Your task to perform on an android device: toggle translation in the chrome app Image 0: 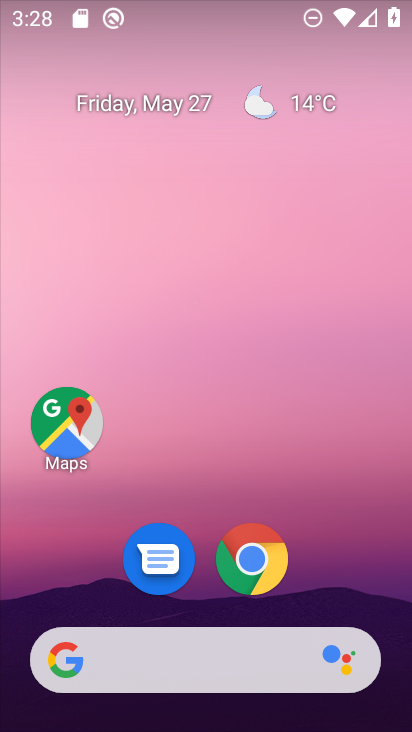
Step 0: drag from (294, 592) to (288, 61)
Your task to perform on an android device: toggle translation in the chrome app Image 1: 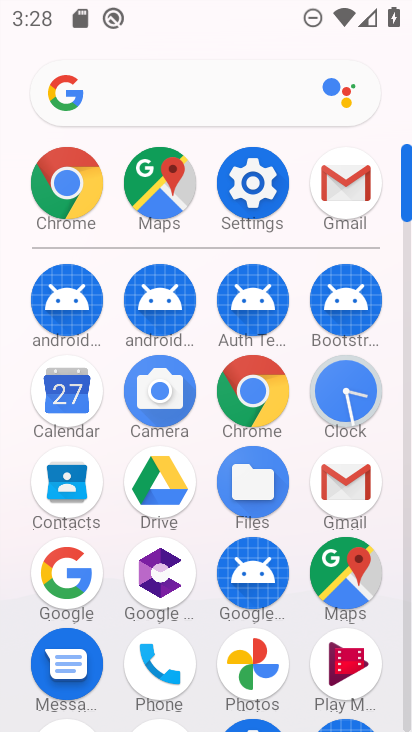
Step 1: click (61, 188)
Your task to perform on an android device: toggle translation in the chrome app Image 2: 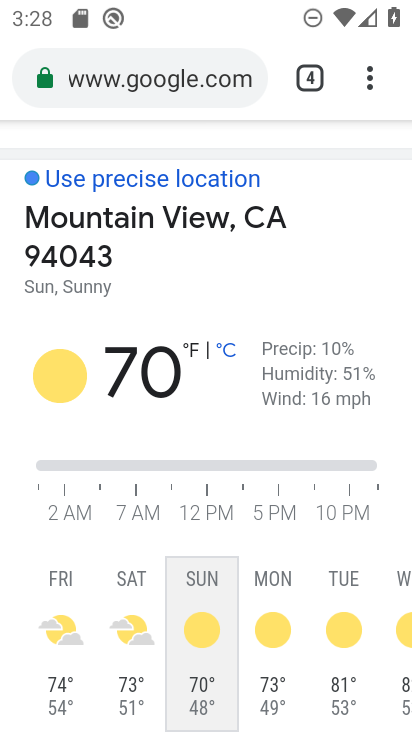
Step 2: click (376, 82)
Your task to perform on an android device: toggle translation in the chrome app Image 3: 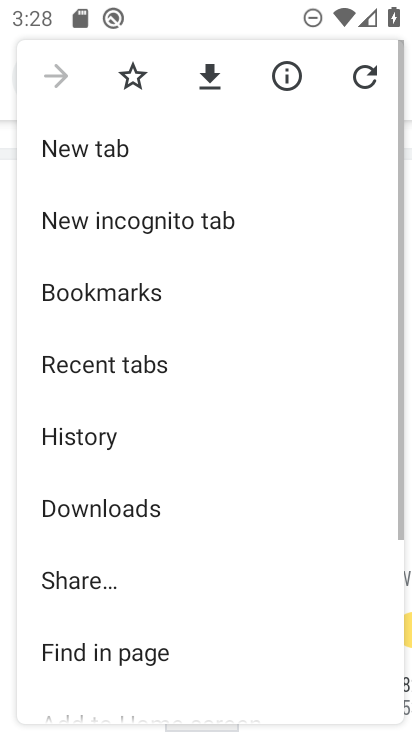
Step 3: drag from (230, 561) to (240, 162)
Your task to perform on an android device: toggle translation in the chrome app Image 4: 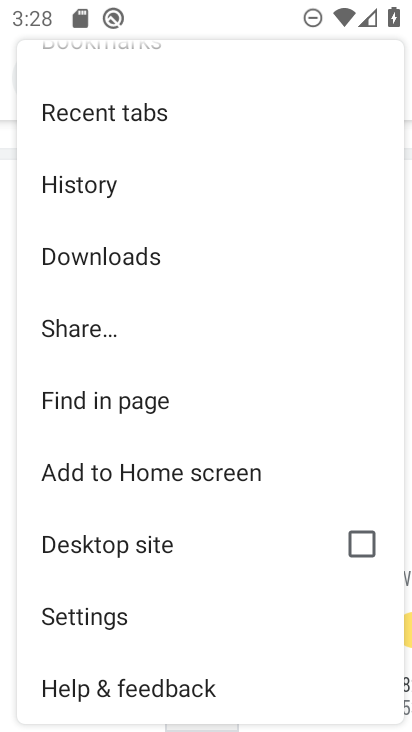
Step 4: click (105, 617)
Your task to perform on an android device: toggle translation in the chrome app Image 5: 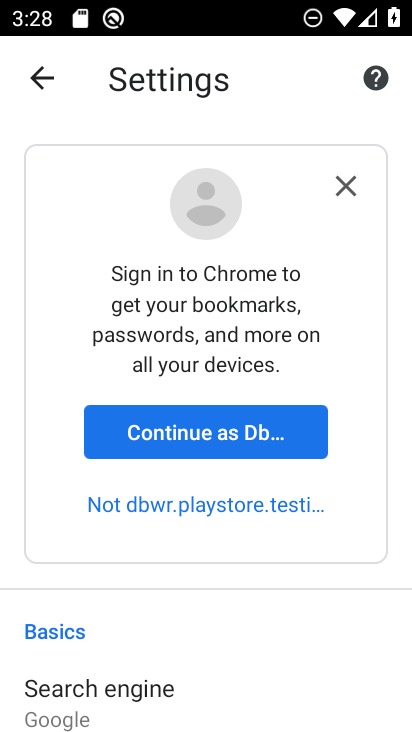
Step 5: drag from (212, 649) to (214, 191)
Your task to perform on an android device: toggle translation in the chrome app Image 6: 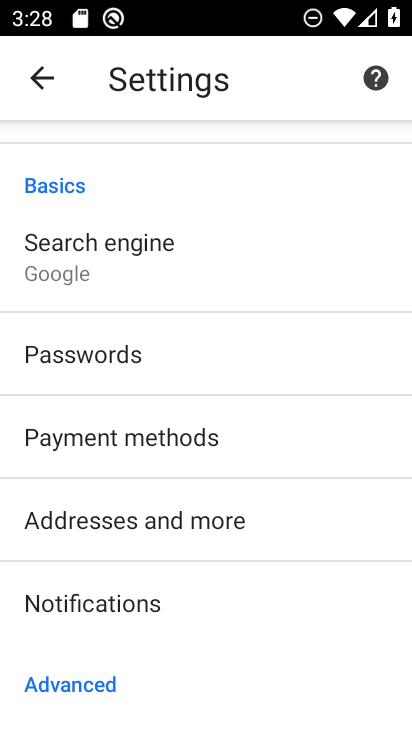
Step 6: drag from (271, 627) to (278, 259)
Your task to perform on an android device: toggle translation in the chrome app Image 7: 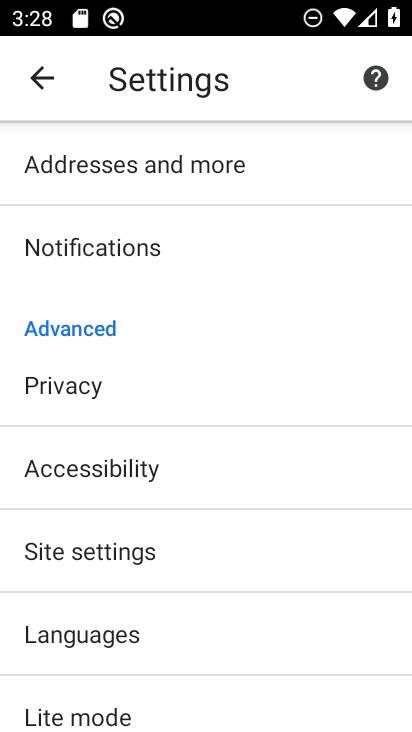
Step 7: click (182, 643)
Your task to perform on an android device: toggle translation in the chrome app Image 8: 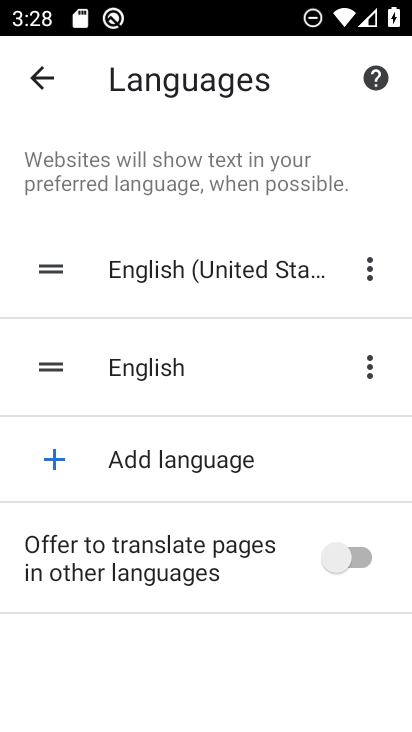
Step 8: drag from (240, 631) to (244, 542)
Your task to perform on an android device: toggle translation in the chrome app Image 9: 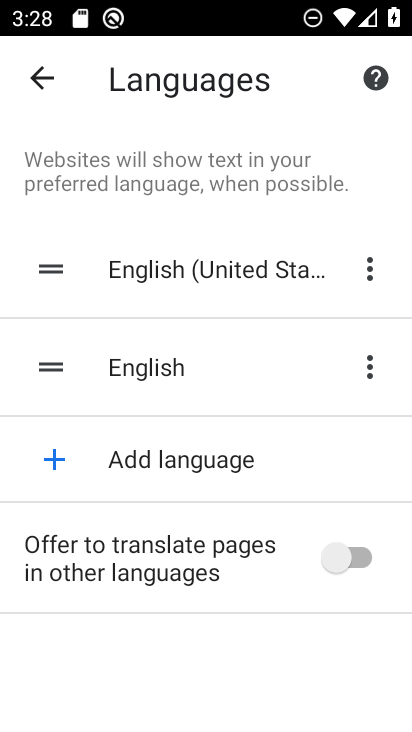
Step 9: click (353, 561)
Your task to perform on an android device: toggle translation in the chrome app Image 10: 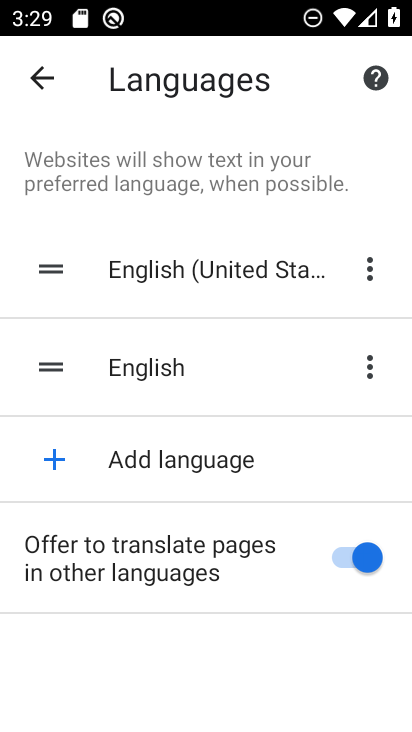
Step 10: task complete